Your task to perform on an android device: Search for bose quietcomfort 35 on costco, select the first entry, add it to the cart, then select checkout. Image 0: 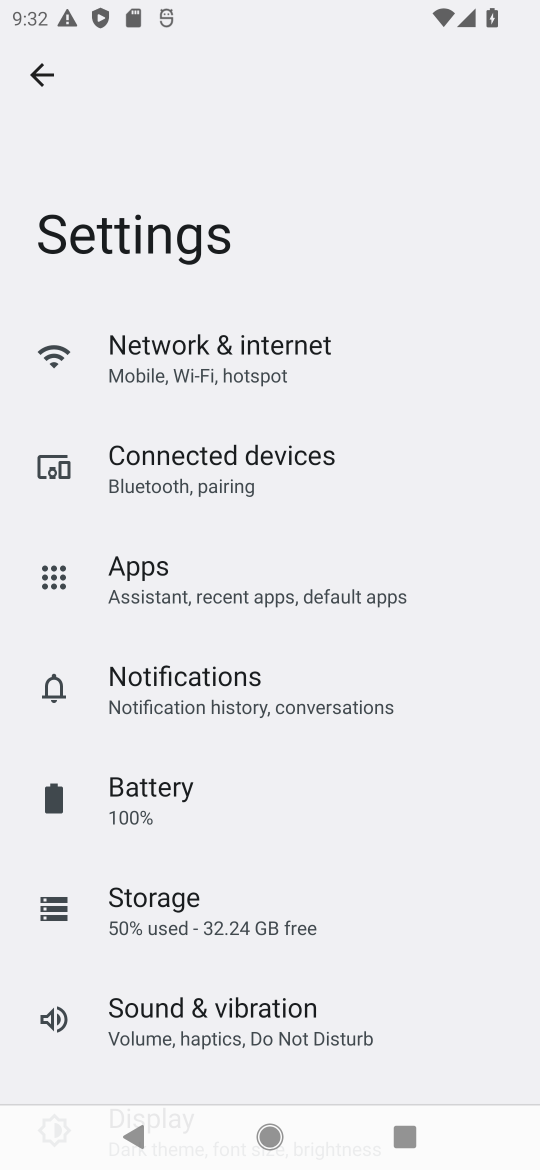
Step 0: press home button
Your task to perform on an android device: Search for bose quietcomfort 35 on costco, select the first entry, add it to the cart, then select checkout. Image 1: 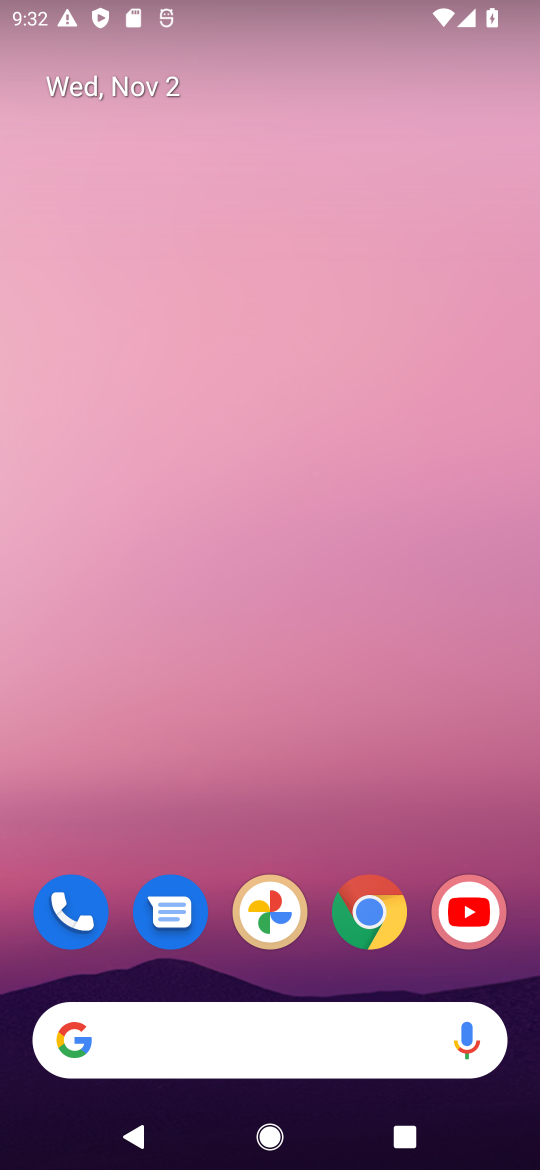
Step 1: drag from (312, 1061) to (243, 59)
Your task to perform on an android device: Search for bose quietcomfort 35 on costco, select the first entry, add it to the cart, then select checkout. Image 2: 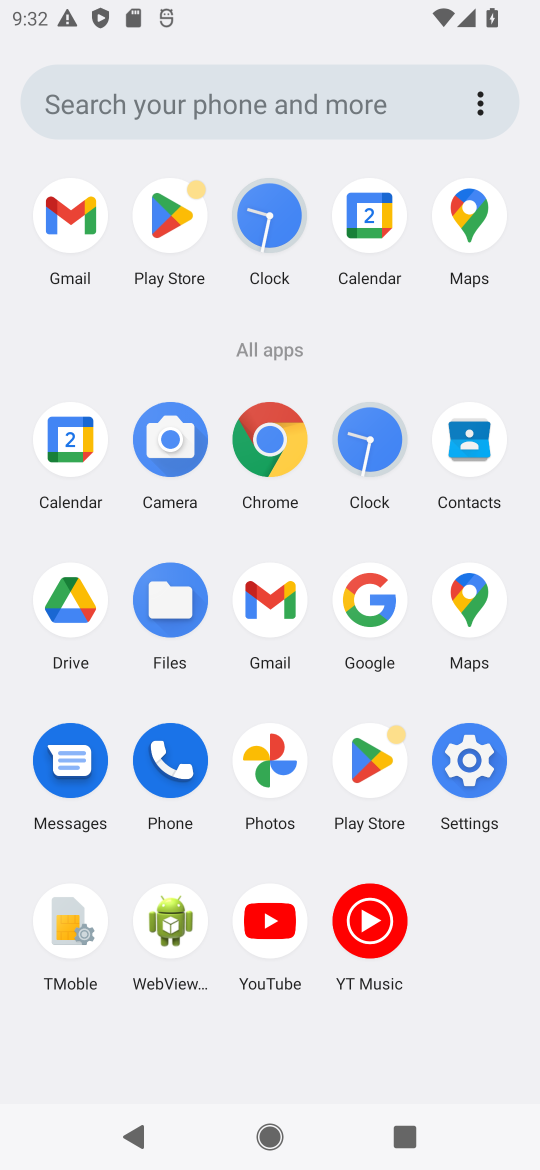
Step 2: click (279, 448)
Your task to perform on an android device: Search for bose quietcomfort 35 on costco, select the first entry, add it to the cart, then select checkout. Image 3: 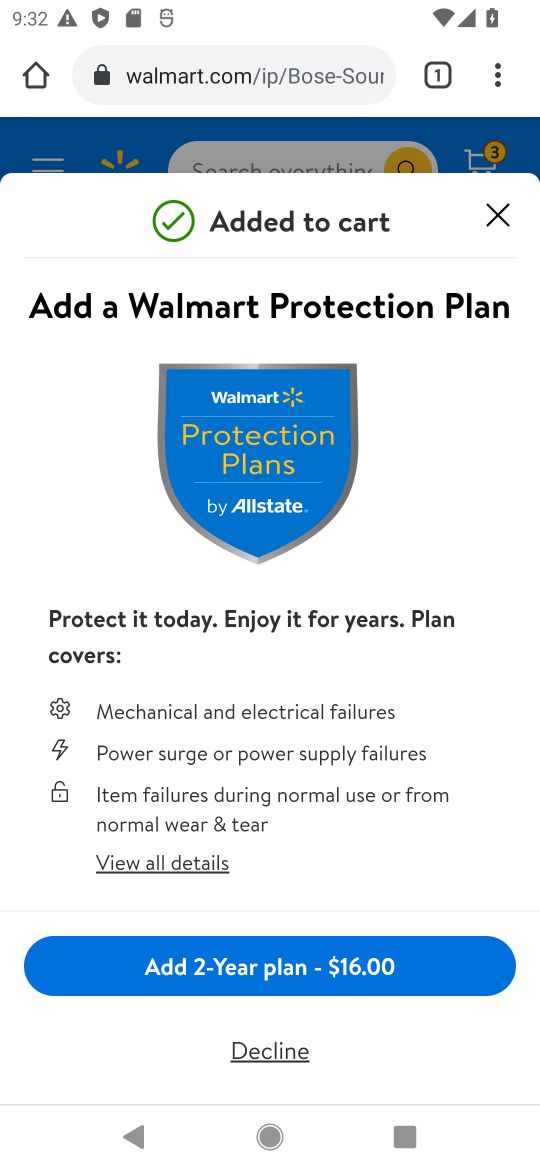
Step 3: click (289, 64)
Your task to perform on an android device: Search for bose quietcomfort 35 on costco, select the first entry, add it to the cart, then select checkout. Image 4: 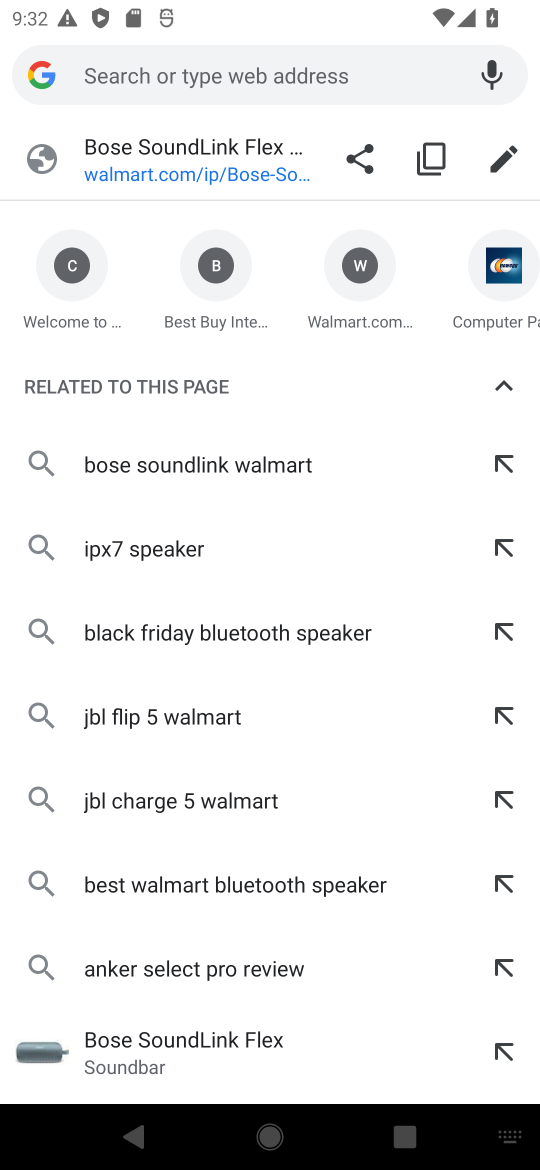
Step 4: type "costco"
Your task to perform on an android device: Search for bose quietcomfort 35 on costco, select the first entry, add it to the cart, then select checkout. Image 5: 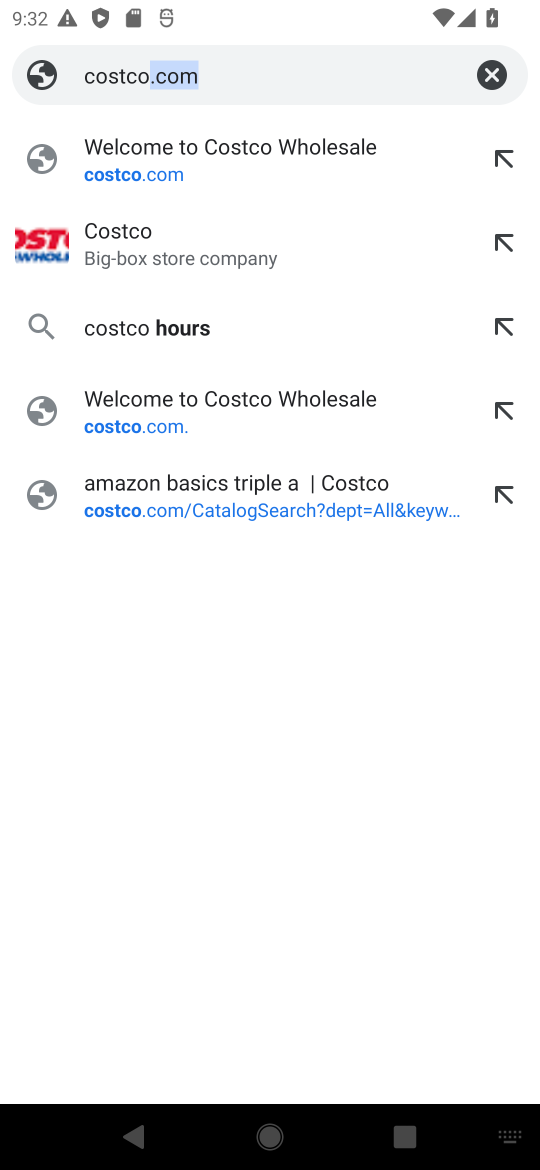
Step 5: click (135, 168)
Your task to perform on an android device: Search for bose quietcomfort 35 on costco, select the first entry, add it to the cart, then select checkout. Image 6: 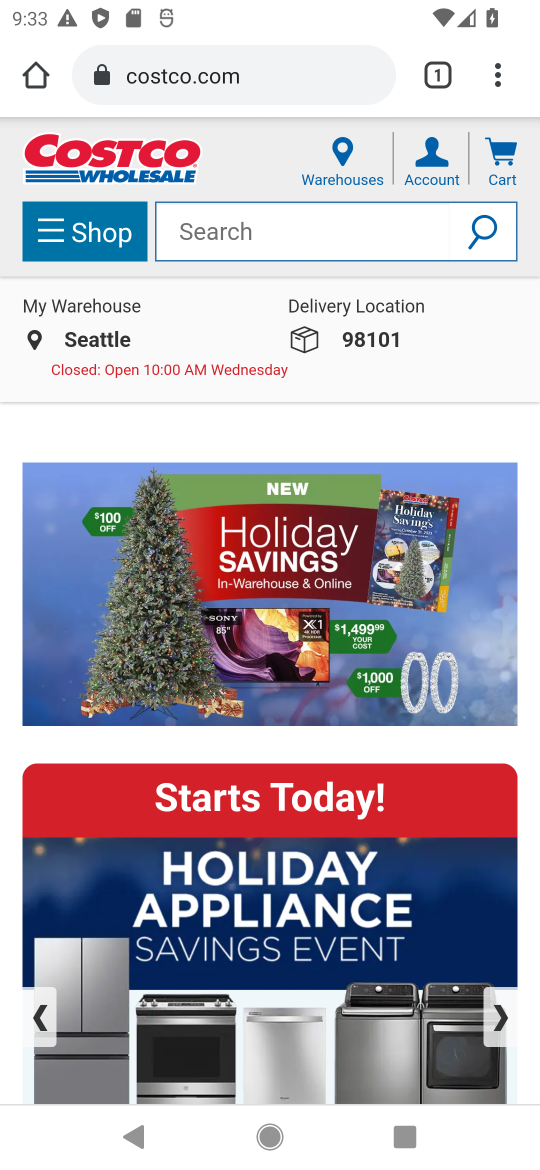
Step 6: click (233, 212)
Your task to perform on an android device: Search for bose quietcomfort 35 on costco, select the first entry, add it to the cart, then select checkout. Image 7: 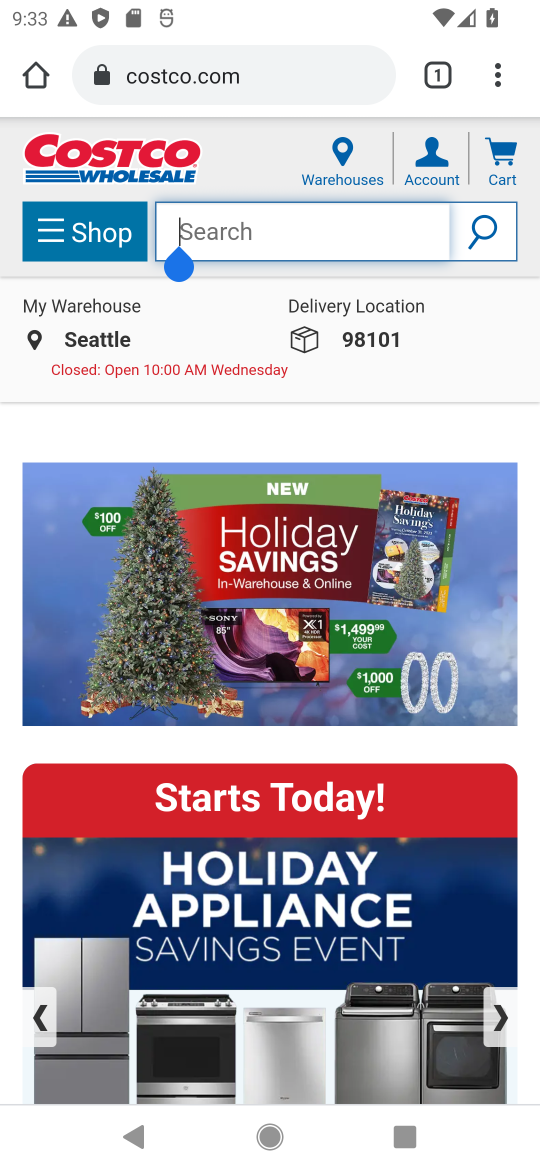
Step 7: type "bose quietcomfort 35"
Your task to perform on an android device: Search for bose quietcomfort 35 on costco, select the first entry, add it to the cart, then select checkout. Image 8: 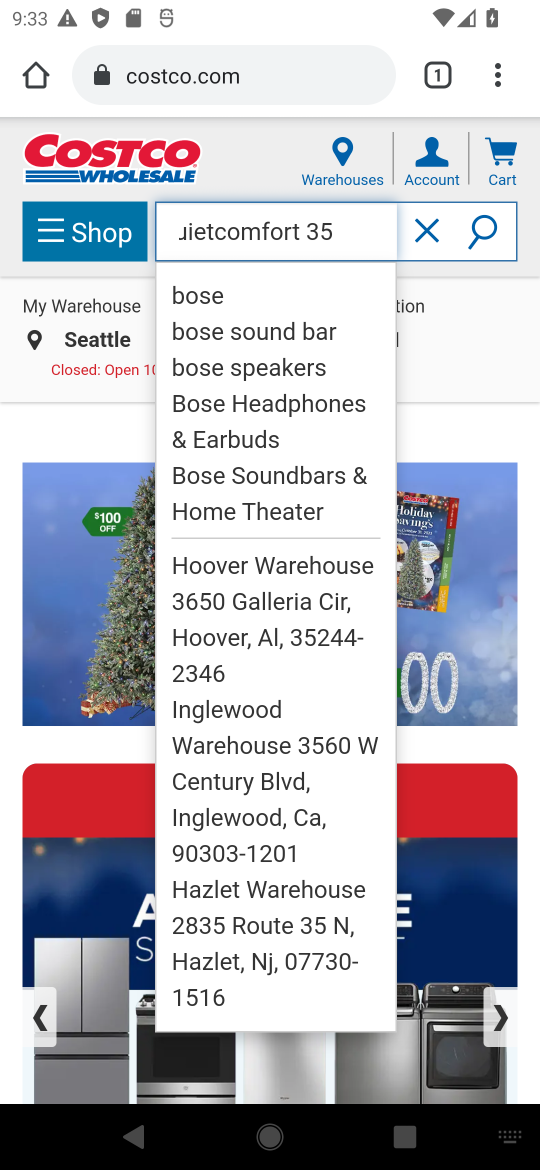
Step 8: click (486, 223)
Your task to perform on an android device: Search for bose quietcomfort 35 on costco, select the first entry, add it to the cart, then select checkout. Image 9: 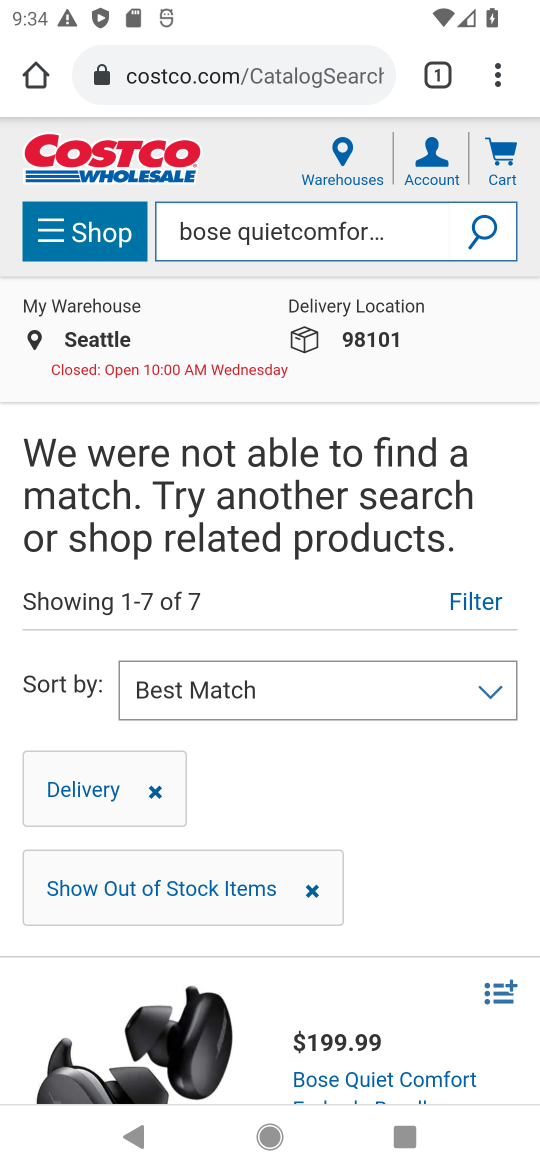
Step 9: task complete